Your task to perform on an android device: choose inbox layout in the gmail app Image 0: 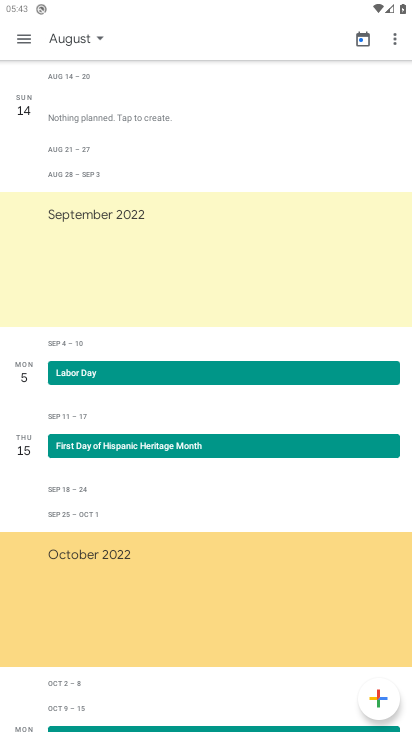
Step 0: press home button
Your task to perform on an android device: choose inbox layout in the gmail app Image 1: 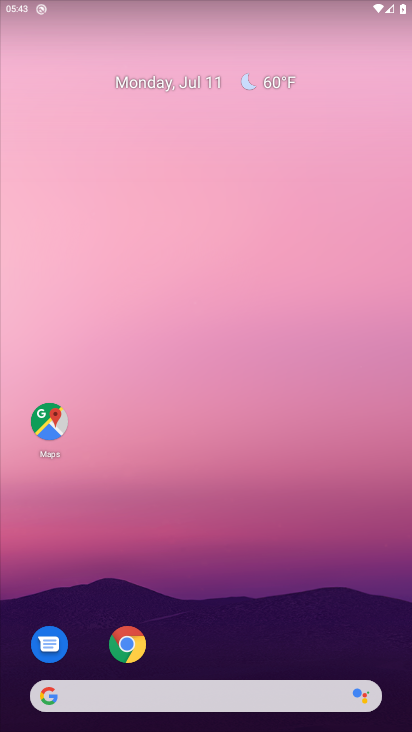
Step 1: drag from (228, 639) to (228, 312)
Your task to perform on an android device: choose inbox layout in the gmail app Image 2: 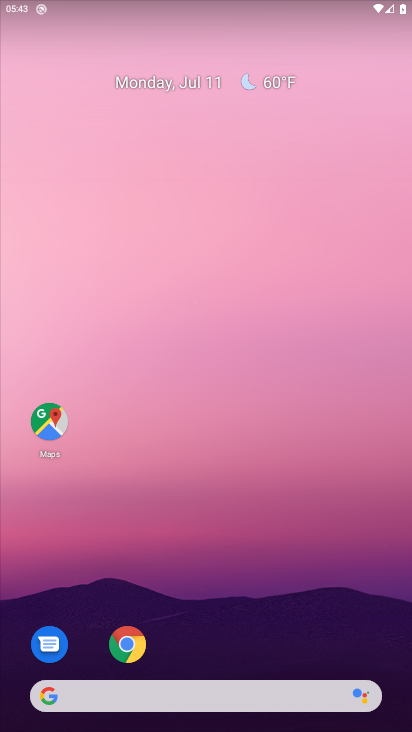
Step 2: drag from (240, 680) to (222, 306)
Your task to perform on an android device: choose inbox layout in the gmail app Image 3: 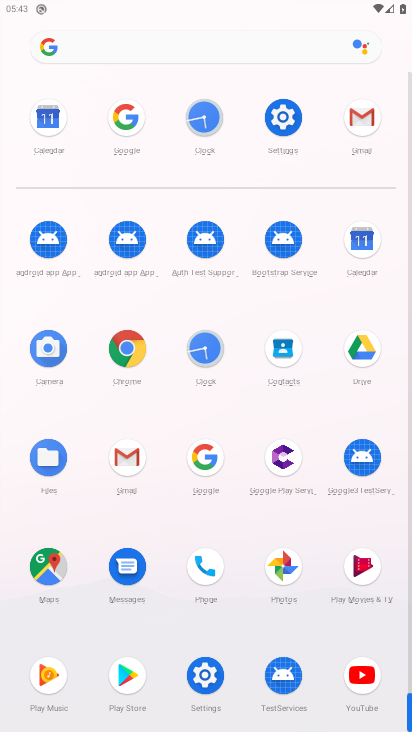
Step 3: click (137, 451)
Your task to perform on an android device: choose inbox layout in the gmail app Image 4: 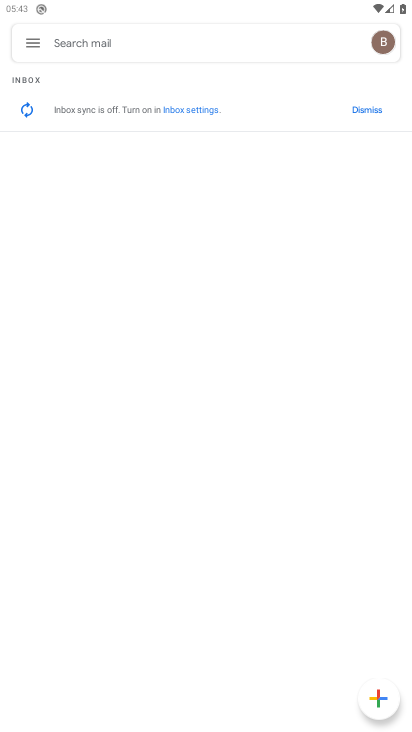
Step 4: click (29, 40)
Your task to perform on an android device: choose inbox layout in the gmail app Image 5: 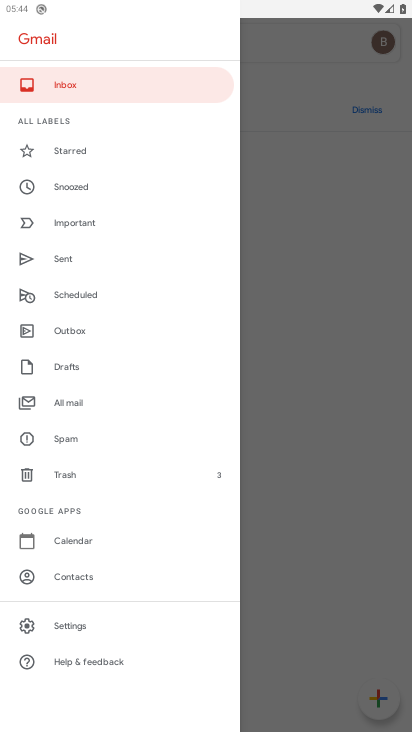
Step 5: click (60, 628)
Your task to perform on an android device: choose inbox layout in the gmail app Image 6: 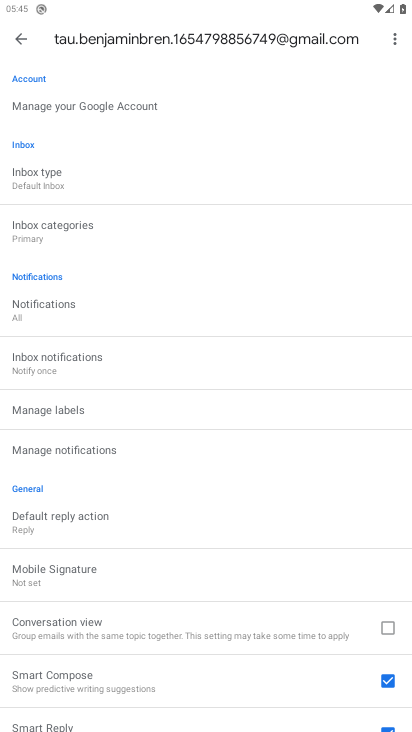
Step 6: click (45, 182)
Your task to perform on an android device: choose inbox layout in the gmail app Image 7: 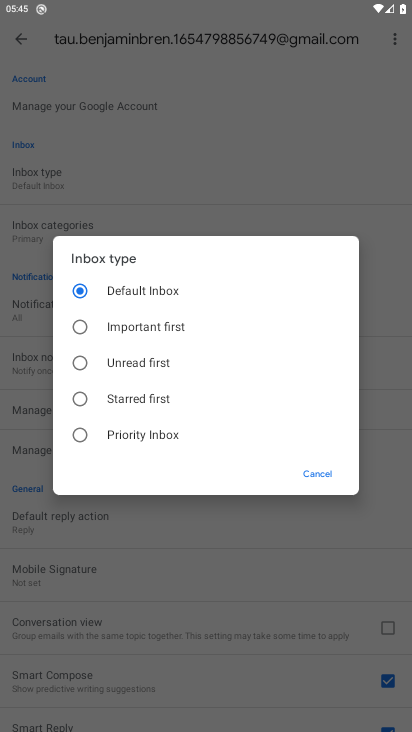
Step 7: click (161, 436)
Your task to perform on an android device: choose inbox layout in the gmail app Image 8: 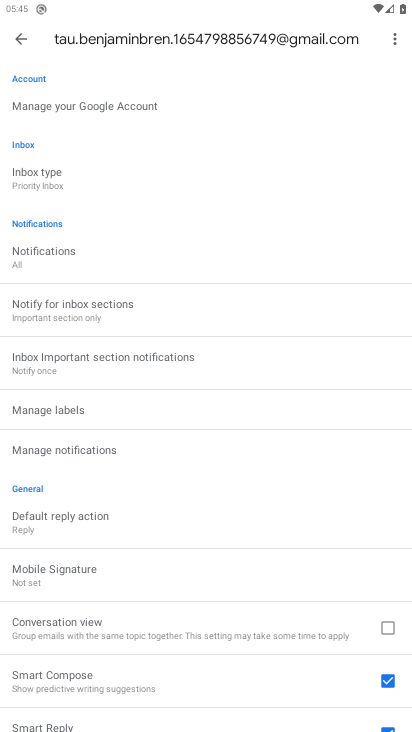
Step 8: task complete